Your task to perform on an android device: open a bookmark in the chrome app Image 0: 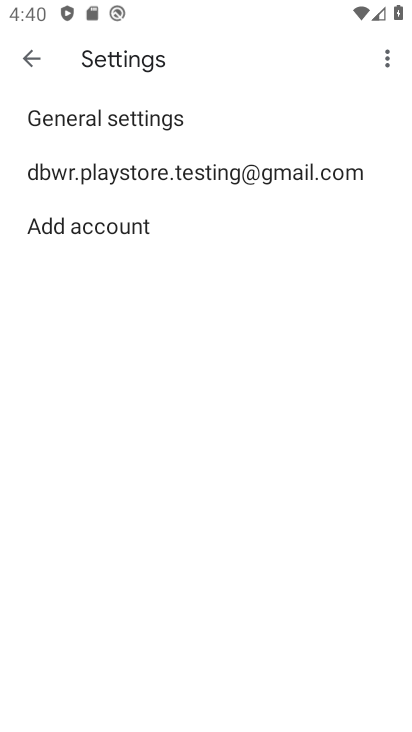
Step 0: press back button
Your task to perform on an android device: open a bookmark in the chrome app Image 1: 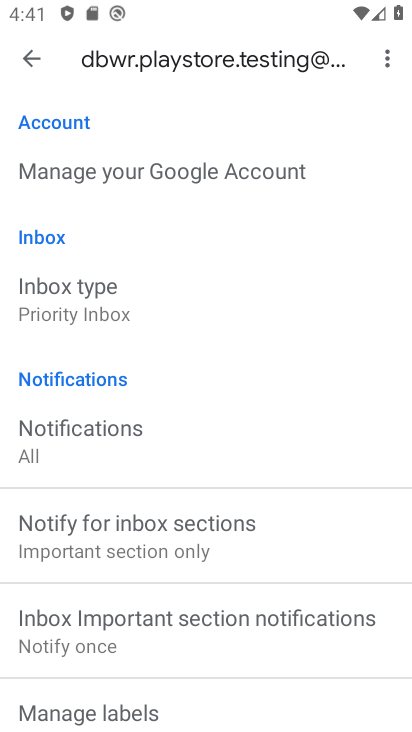
Step 1: press back button
Your task to perform on an android device: open a bookmark in the chrome app Image 2: 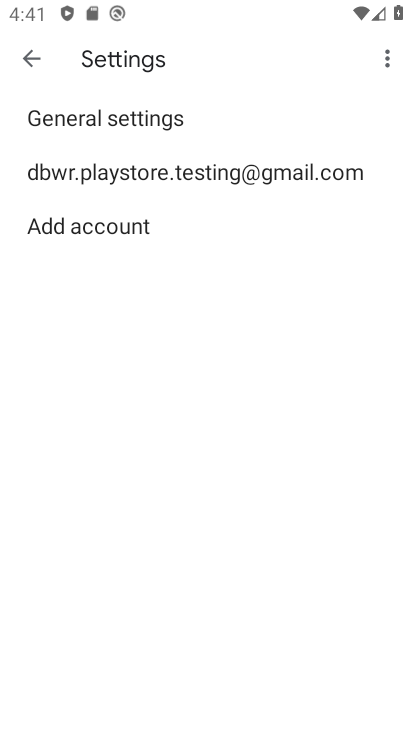
Step 2: press back button
Your task to perform on an android device: open a bookmark in the chrome app Image 3: 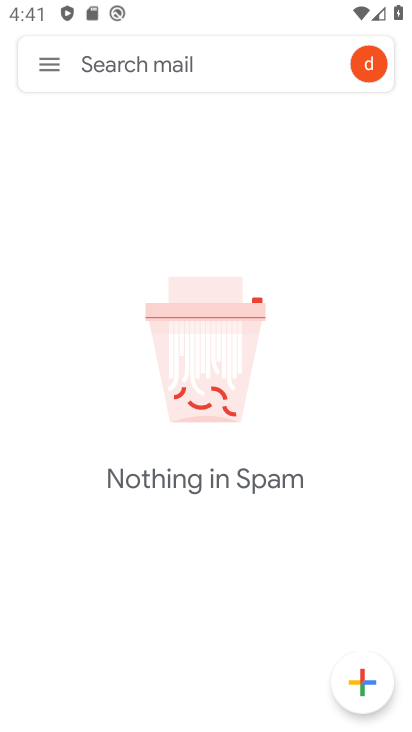
Step 3: press back button
Your task to perform on an android device: open a bookmark in the chrome app Image 4: 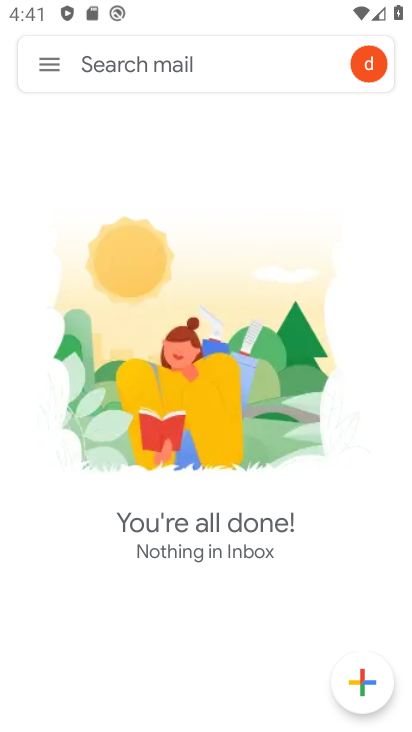
Step 4: press back button
Your task to perform on an android device: open a bookmark in the chrome app Image 5: 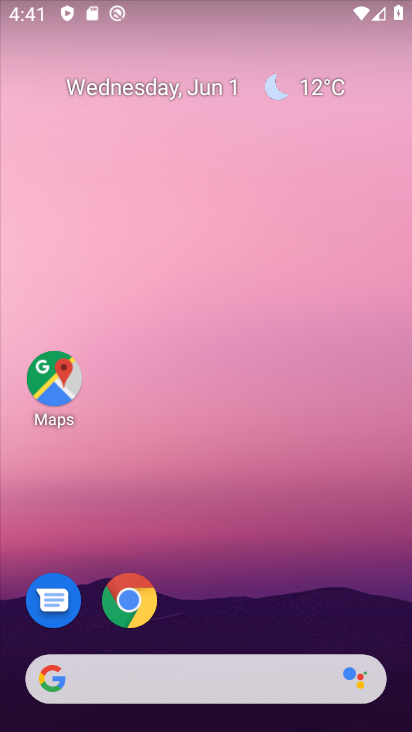
Step 5: click (131, 600)
Your task to perform on an android device: open a bookmark in the chrome app Image 6: 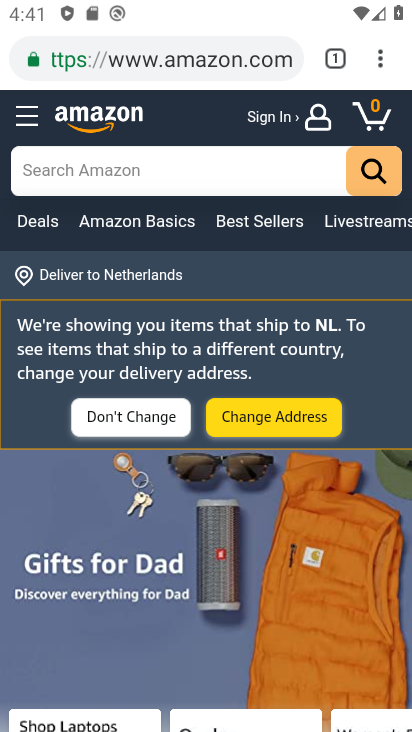
Step 6: click (382, 57)
Your task to perform on an android device: open a bookmark in the chrome app Image 7: 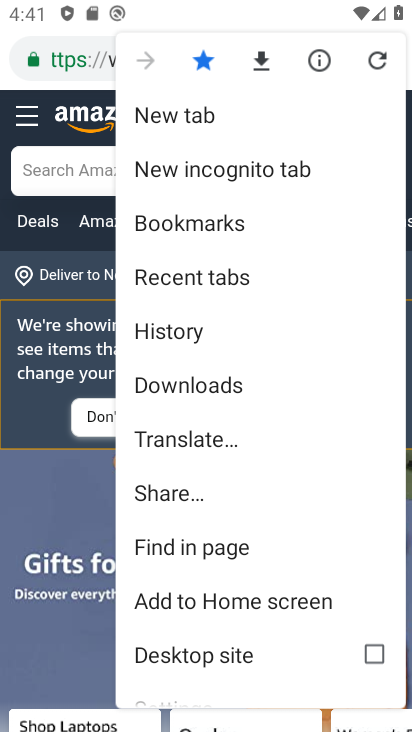
Step 7: click (222, 222)
Your task to perform on an android device: open a bookmark in the chrome app Image 8: 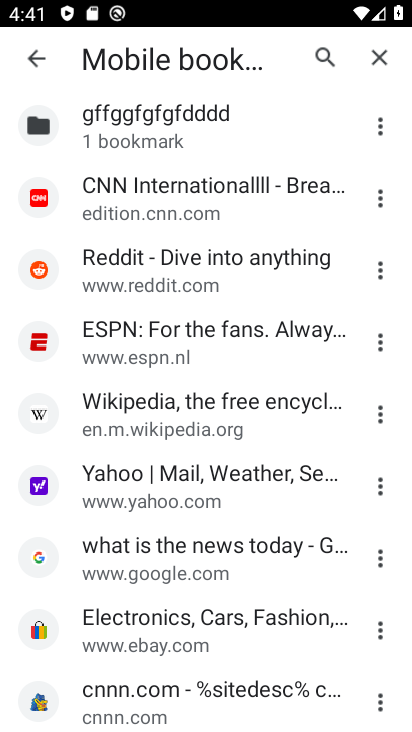
Step 8: task complete